Your task to perform on an android device: find snoozed emails in the gmail app Image 0: 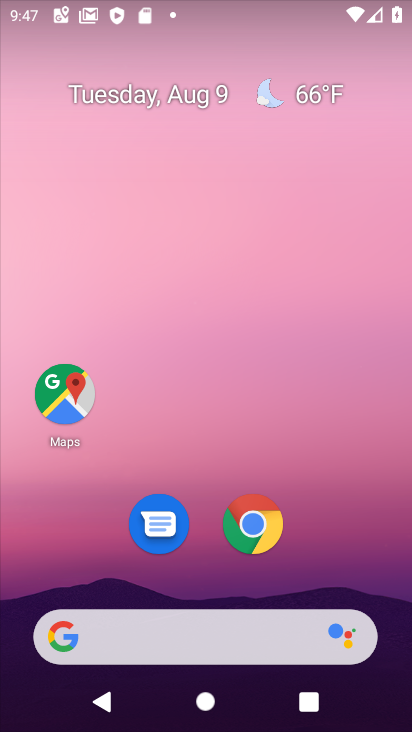
Step 0: drag from (219, 595) to (191, 128)
Your task to perform on an android device: find snoozed emails in the gmail app Image 1: 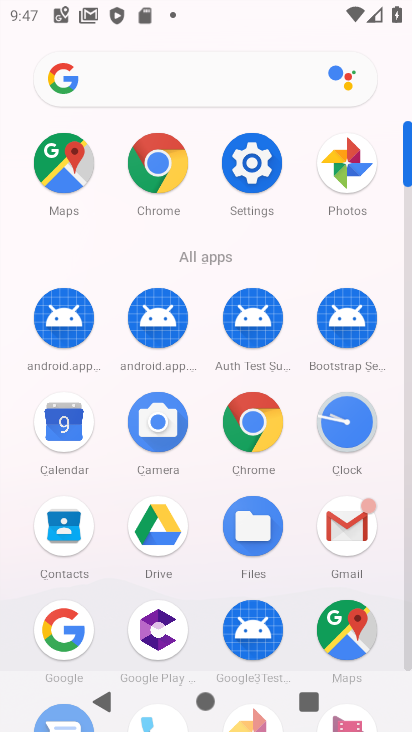
Step 1: click (363, 527)
Your task to perform on an android device: find snoozed emails in the gmail app Image 2: 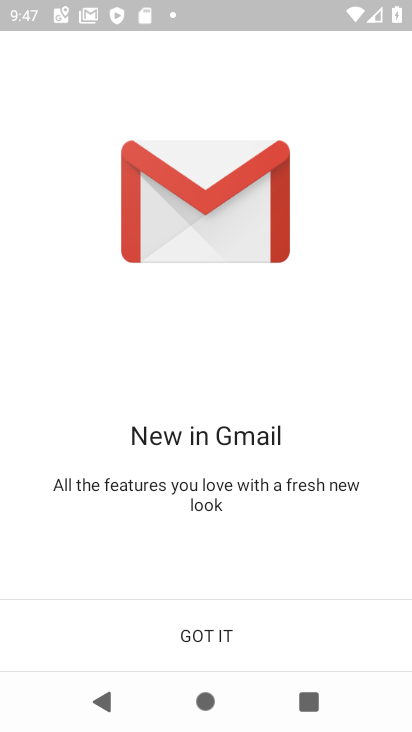
Step 2: click (330, 667)
Your task to perform on an android device: find snoozed emails in the gmail app Image 3: 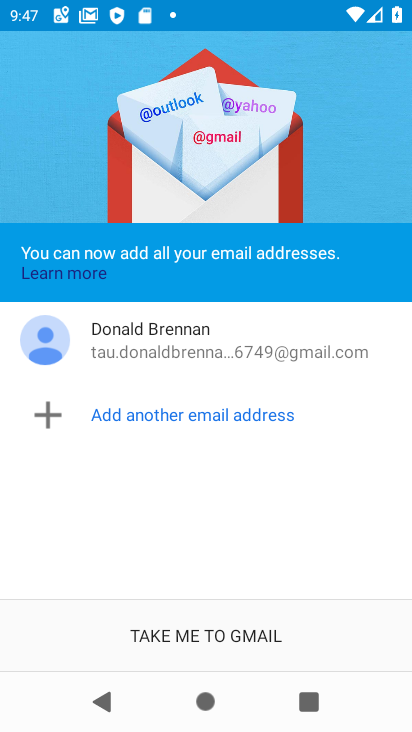
Step 3: click (257, 638)
Your task to perform on an android device: find snoozed emails in the gmail app Image 4: 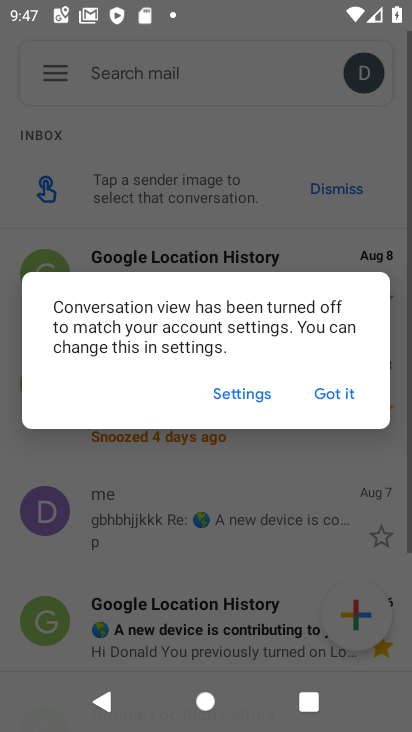
Step 4: click (314, 395)
Your task to perform on an android device: find snoozed emails in the gmail app Image 5: 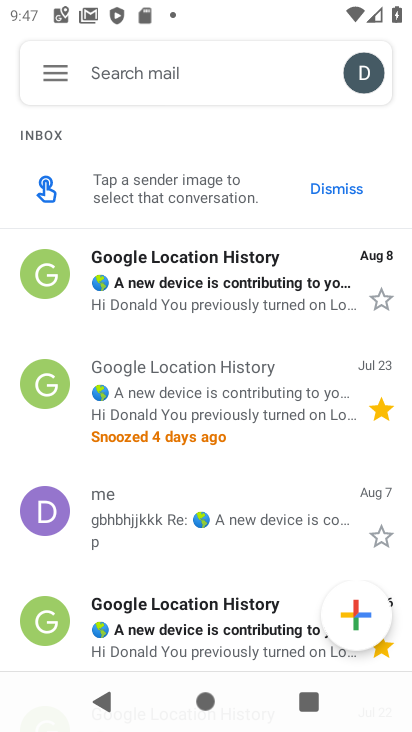
Step 5: click (47, 65)
Your task to perform on an android device: find snoozed emails in the gmail app Image 6: 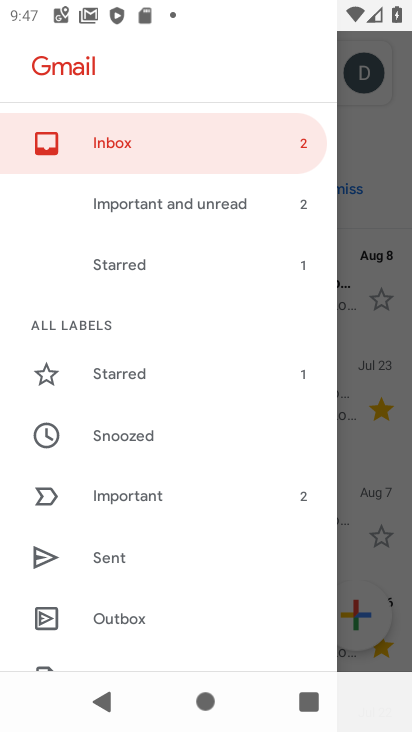
Step 6: click (163, 445)
Your task to perform on an android device: find snoozed emails in the gmail app Image 7: 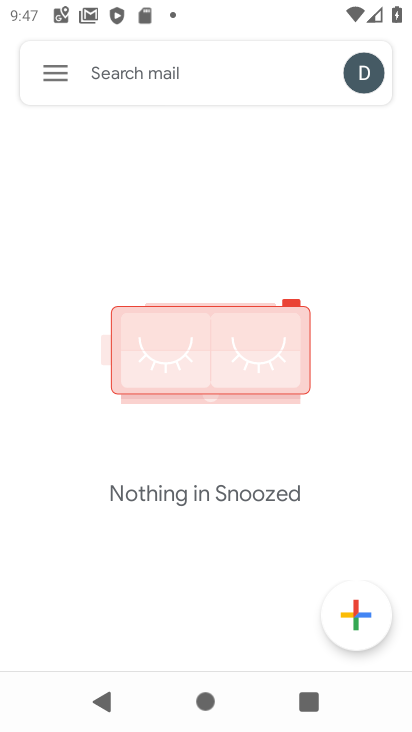
Step 7: task complete